Your task to perform on an android device: Show me popular games on the Play Store Image 0: 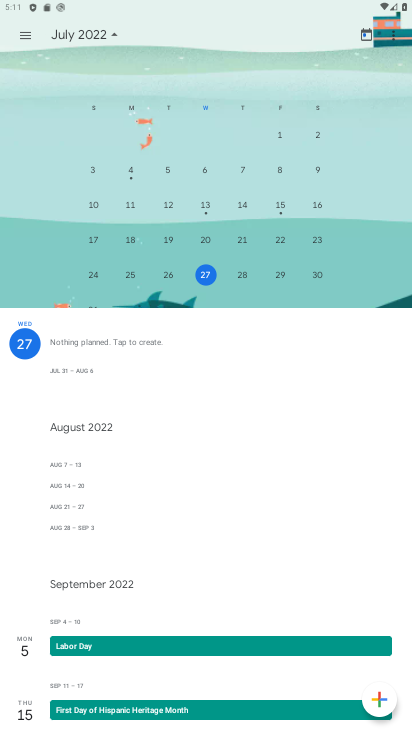
Step 0: press home button
Your task to perform on an android device: Show me popular games on the Play Store Image 1: 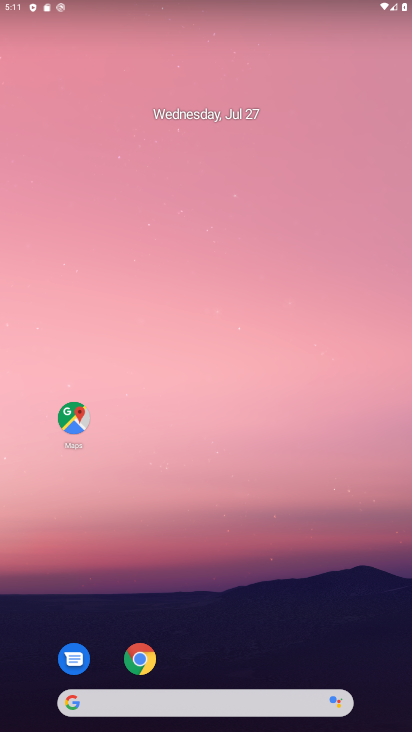
Step 1: drag from (278, 632) to (312, 77)
Your task to perform on an android device: Show me popular games on the Play Store Image 2: 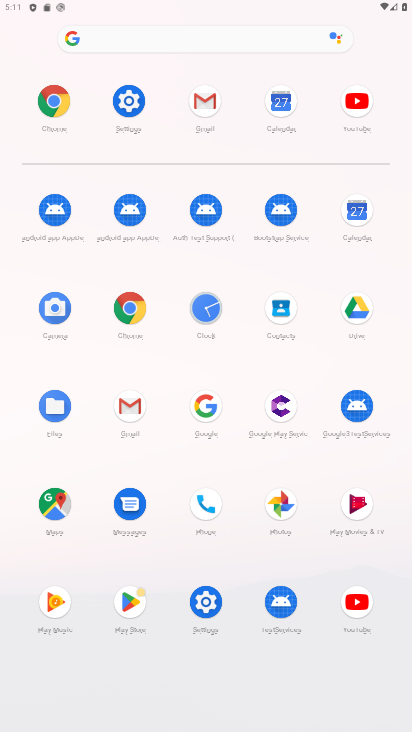
Step 2: click (131, 592)
Your task to perform on an android device: Show me popular games on the Play Store Image 3: 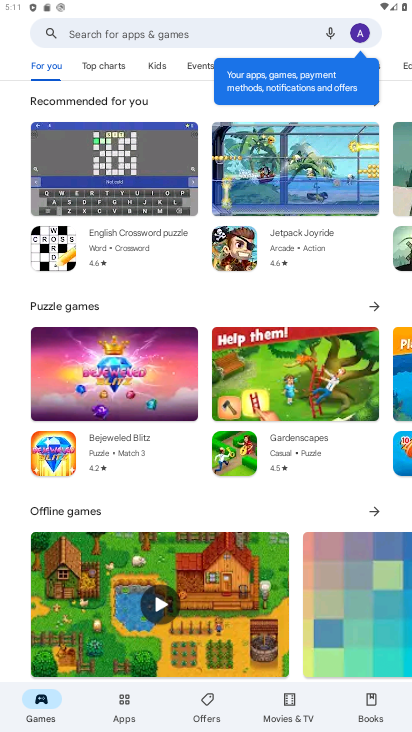
Step 3: click (143, 35)
Your task to perform on an android device: Show me popular games on the Play Store Image 4: 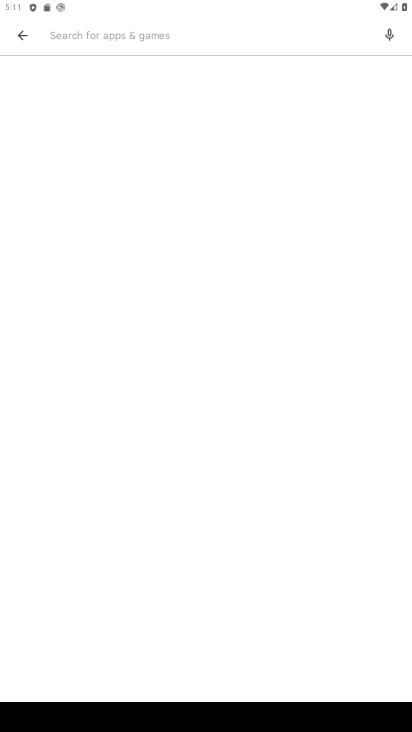
Step 4: type "popular games"
Your task to perform on an android device: Show me popular games on the Play Store Image 5: 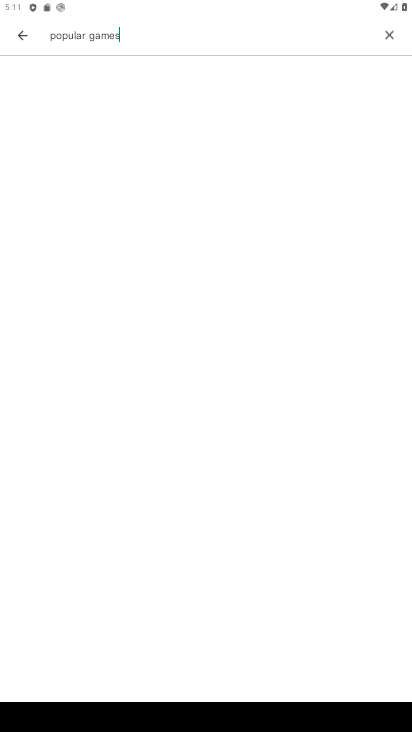
Step 5: type ""
Your task to perform on an android device: Show me popular games on the Play Store Image 6: 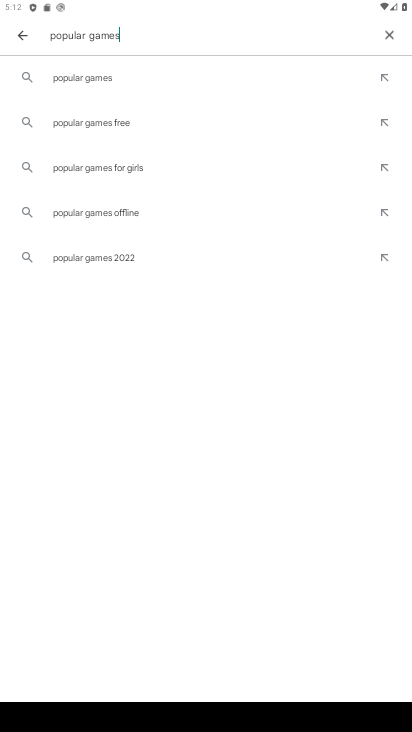
Step 6: click (73, 73)
Your task to perform on an android device: Show me popular games on the Play Store Image 7: 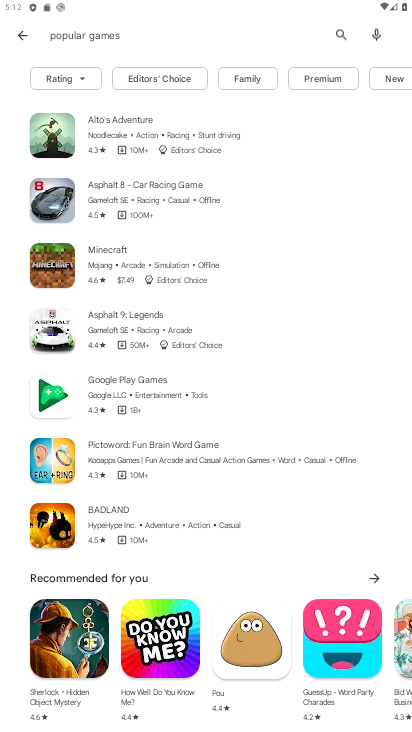
Step 7: task complete